Your task to perform on an android device: manage bookmarks in the chrome app Image 0: 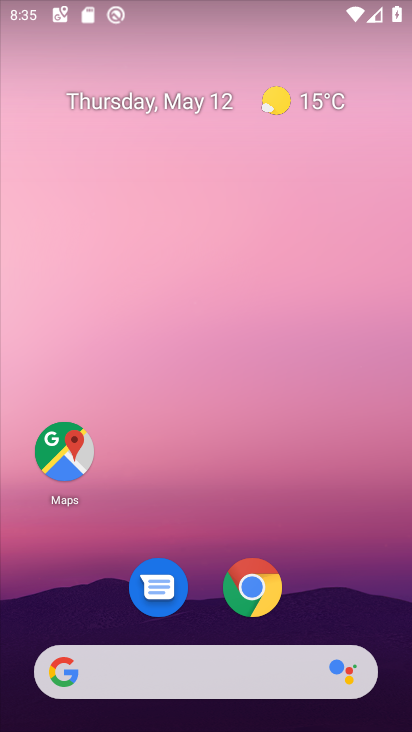
Step 0: drag from (373, 597) to (265, 44)
Your task to perform on an android device: manage bookmarks in the chrome app Image 1: 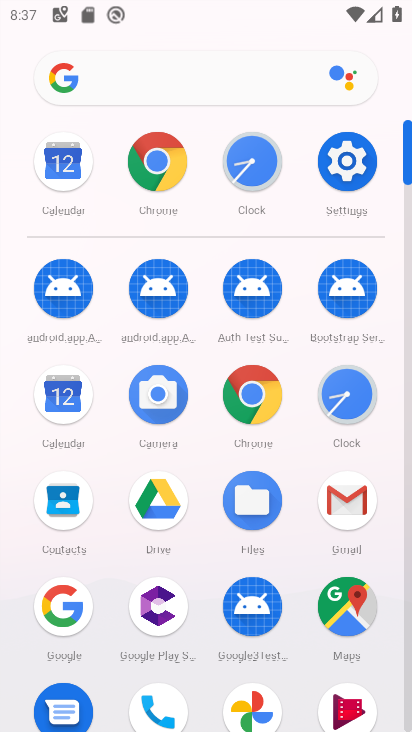
Step 1: click (260, 384)
Your task to perform on an android device: manage bookmarks in the chrome app Image 2: 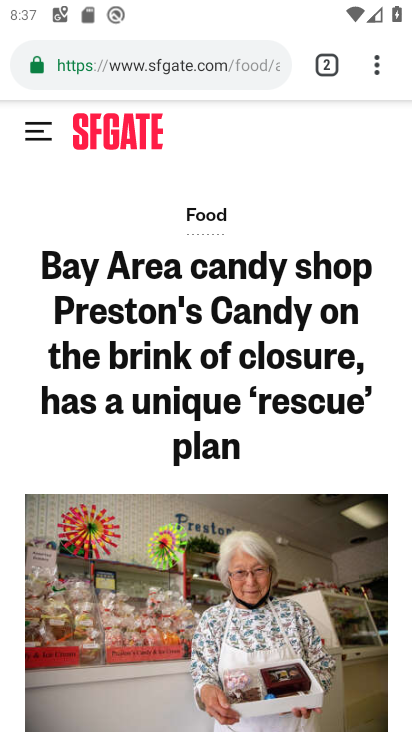
Step 2: task complete